Your task to perform on an android device: What's on my calendar tomorrow? Image 0: 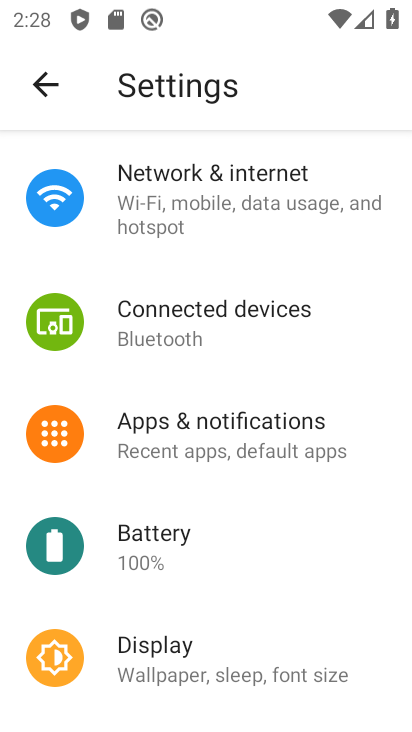
Step 0: press home button
Your task to perform on an android device: What's on my calendar tomorrow? Image 1: 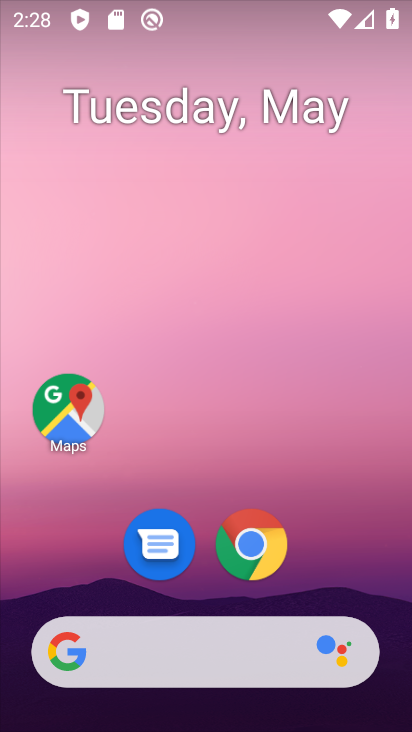
Step 1: drag from (338, 574) to (263, 25)
Your task to perform on an android device: What's on my calendar tomorrow? Image 2: 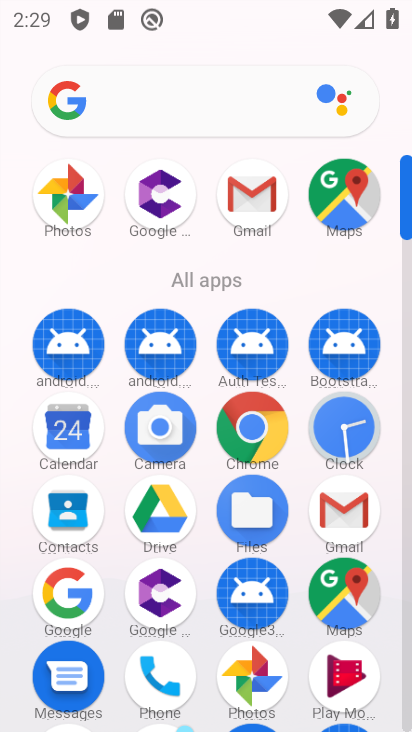
Step 2: click (68, 429)
Your task to perform on an android device: What's on my calendar tomorrow? Image 3: 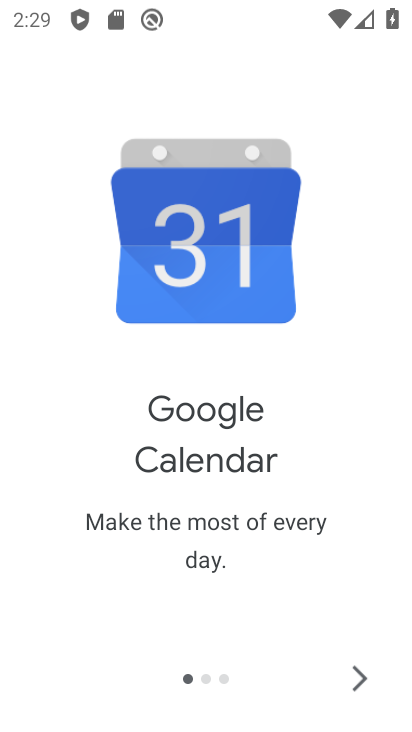
Step 3: click (364, 674)
Your task to perform on an android device: What's on my calendar tomorrow? Image 4: 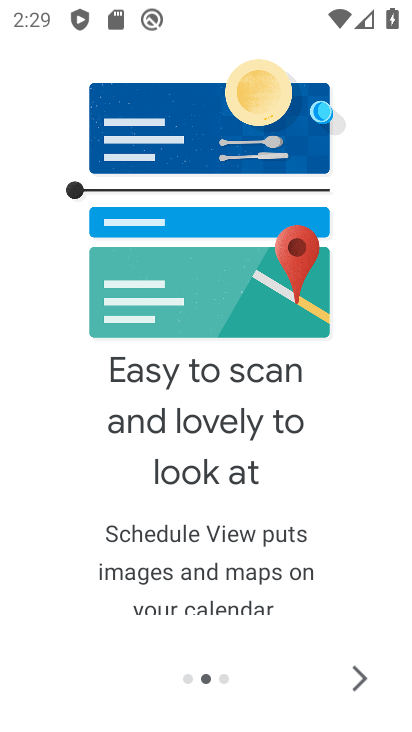
Step 4: click (364, 674)
Your task to perform on an android device: What's on my calendar tomorrow? Image 5: 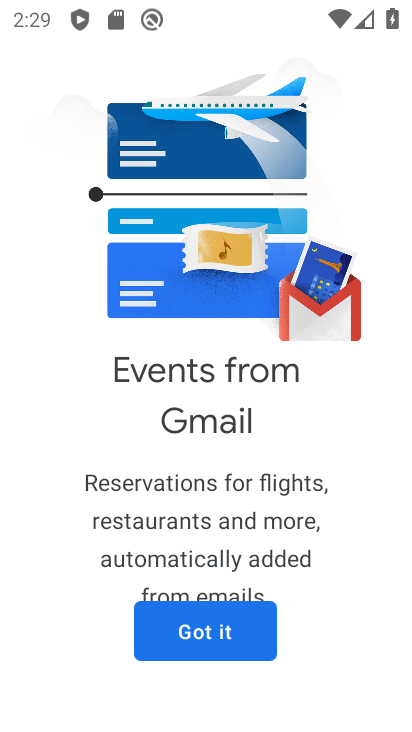
Step 5: click (214, 627)
Your task to perform on an android device: What's on my calendar tomorrow? Image 6: 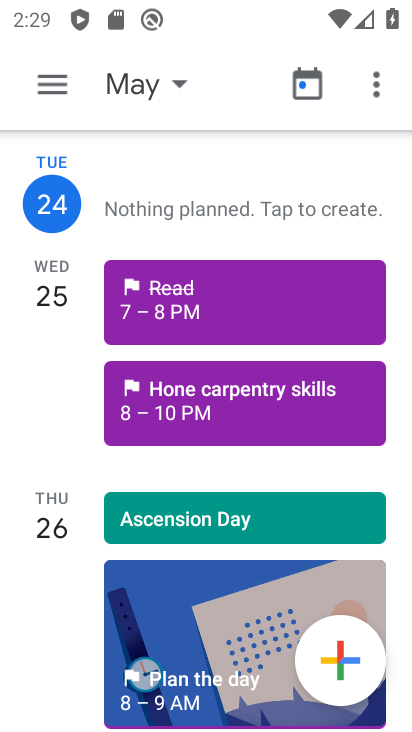
Step 6: click (171, 92)
Your task to perform on an android device: What's on my calendar tomorrow? Image 7: 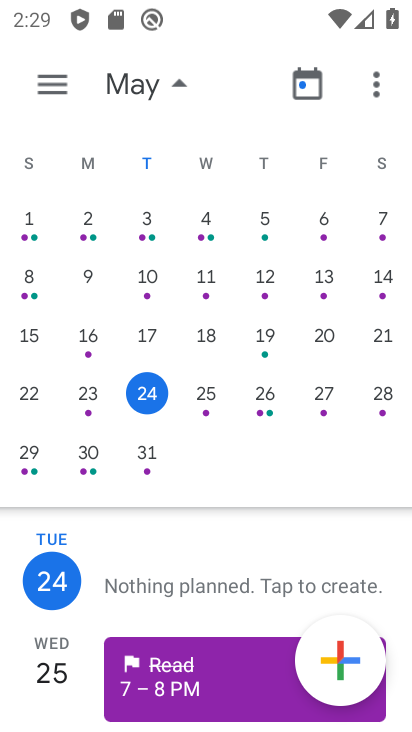
Step 7: click (213, 392)
Your task to perform on an android device: What's on my calendar tomorrow? Image 8: 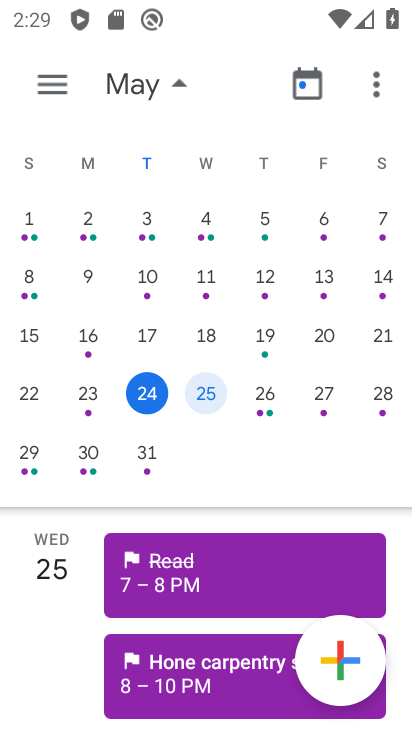
Step 8: click (55, 90)
Your task to perform on an android device: What's on my calendar tomorrow? Image 9: 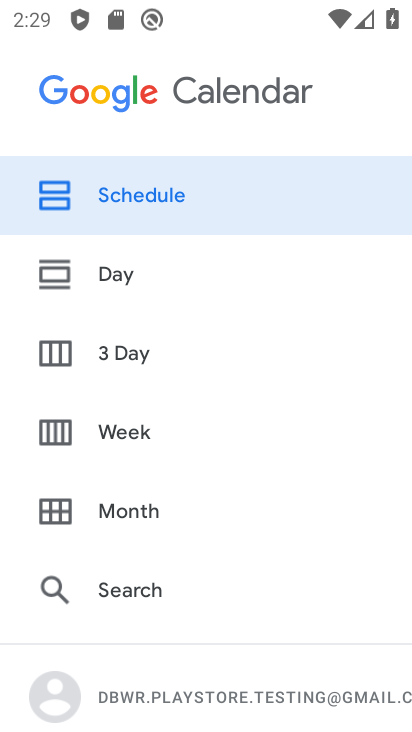
Step 9: click (172, 190)
Your task to perform on an android device: What's on my calendar tomorrow? Image 10: 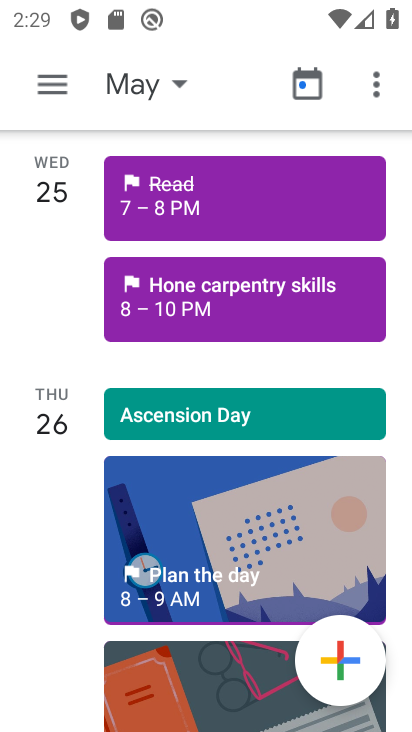
Step 10: task complete